Your task to perform on an android device: turn on javascript in the chrome app Image 0: 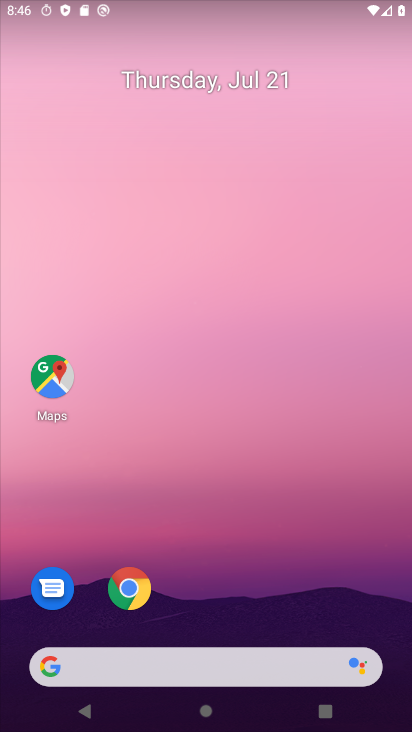
Step 0: drag from (241, 691) to (204, 126)
Your task to perform on an android device: turn on javascript in the chrome app Image 1: 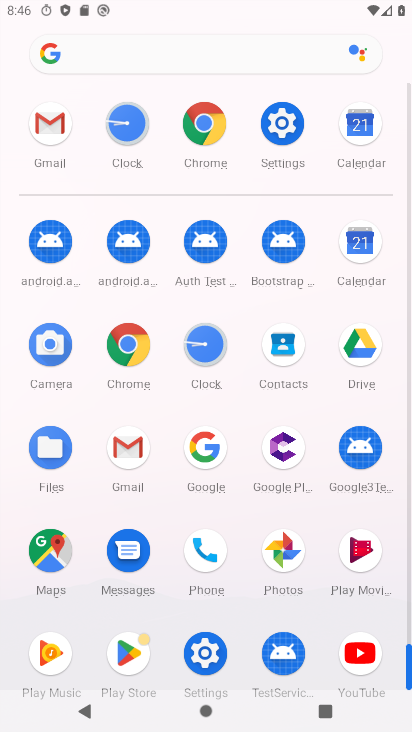
Step 1: click (211, 129)
Your task to perform on an android device: turn on javascript in the chrome app Image 2: 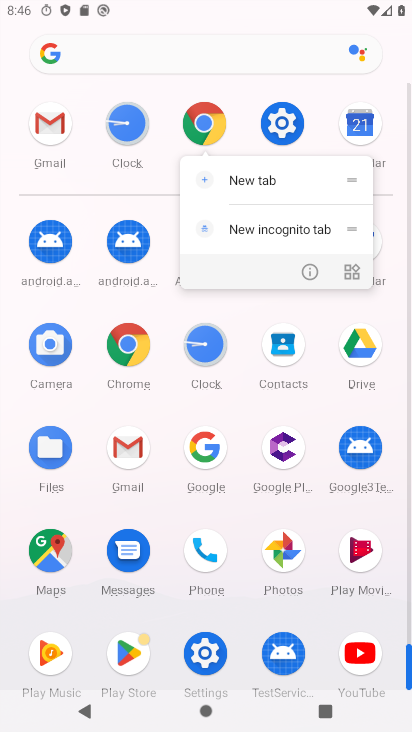
Step 2: click (211, 129)
Your task to perform on an android device: turn on javascript in the chrome app Image 3: 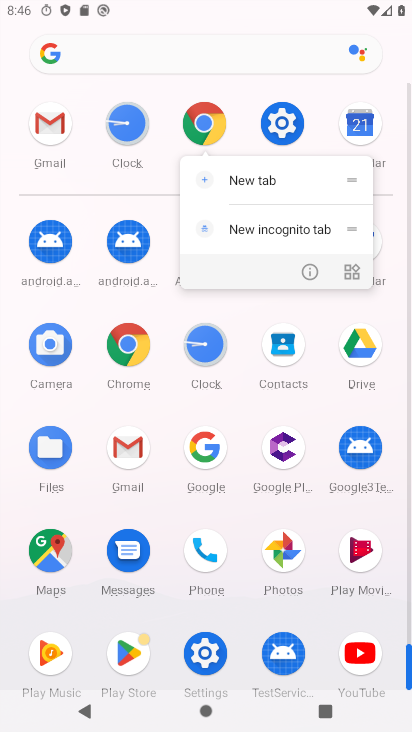
Step 3: click (211, 129)
Your task to perform on an android device: turn on javascript in the chrome app Image 4: 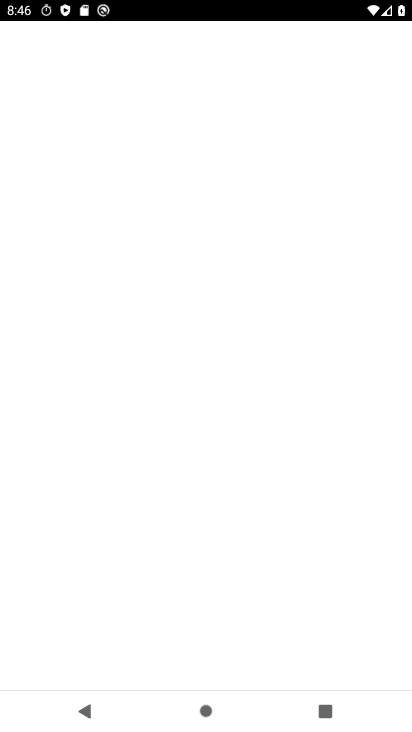
Step 4: click (212, 128)
Your task to perform on an android device: turn on javascript in the chrome app Image 5: 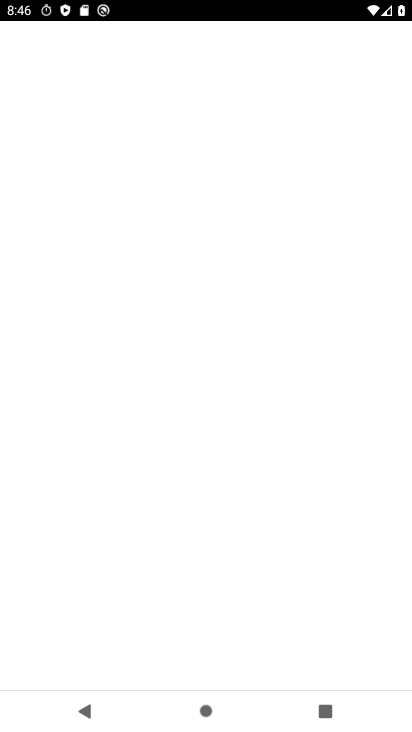
Step 5: click (212, 128)
Your task to perform on an android device: turn on javascript in the chrome app Image 6: 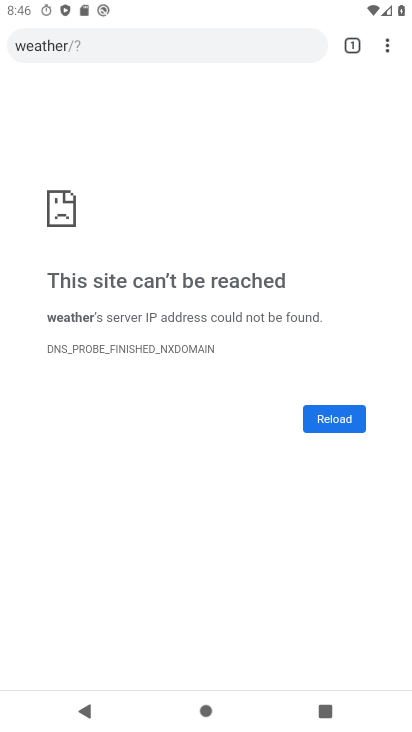
Step 6: click (391, 55)
Your task to perform on an android device: turn on javascript in the chrome app Image 7: 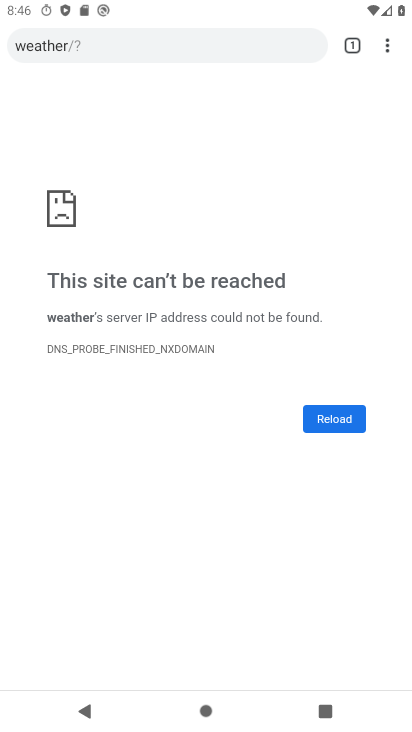
Step 7: drag from (385, 53) to (230, 504)
Your task to perform on an android device: turn on javascript in the chrome app Image 8: 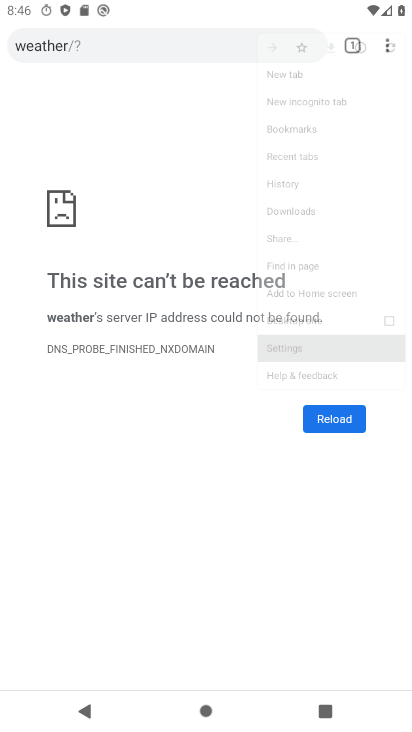
Step 8: click (236, 503)
Your task to perform on an android device: turn on javascript in the chrome app Image 9: 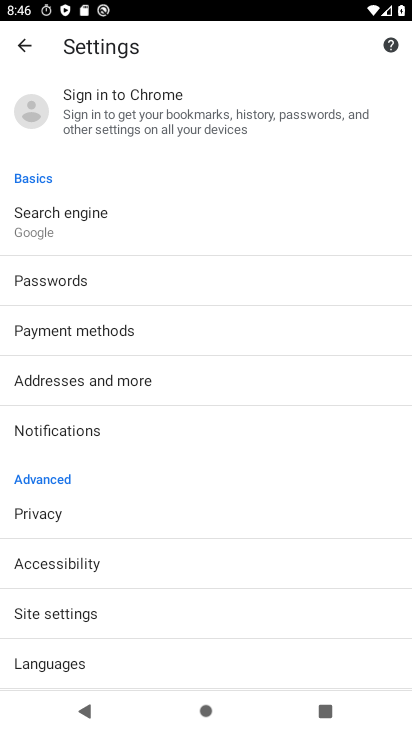
Step 9: click (51, 602)
Your task to perform on an android device: turn on javascript in the chrome app Image 10: 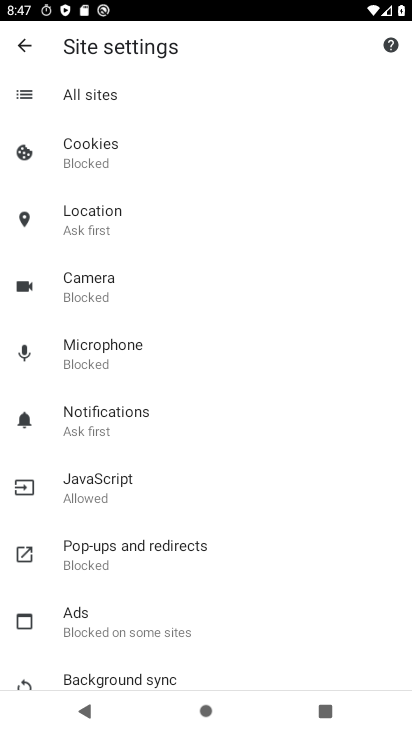
Step 10: click (90, 489)
Your task to perform on an android device: turn on javascript in the chrome app Image 11: 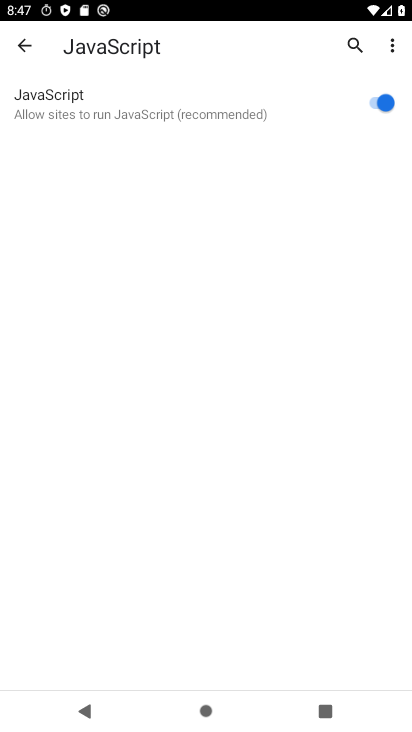
Step 11: task complete